Your task to perform on an android device: Go to sound settings Image 0: 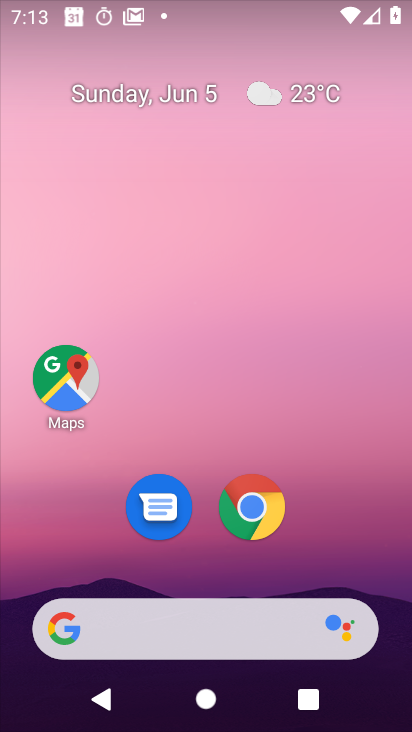
Step 0: click (246, 131)
Your task to perform on an android device: Go to sound settings Image 1: 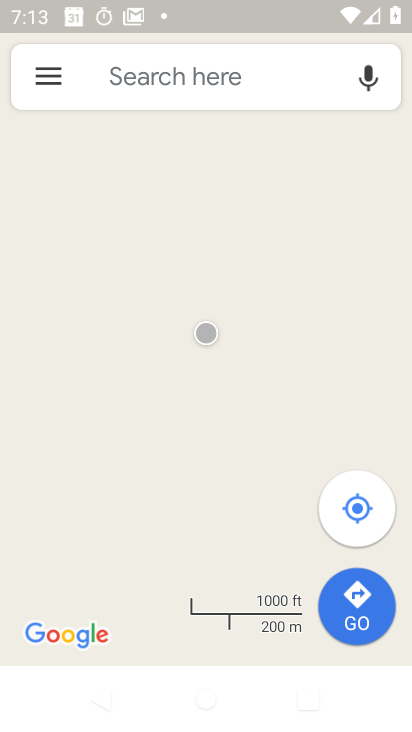
Step 1: press home button
Your task to perform on an android device: Go to sound settings Image 2: 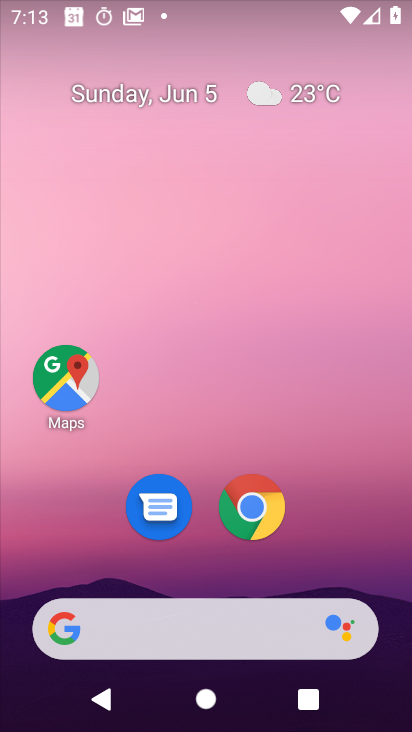
Step 2: drag from (225, 635) to (181, 56)
Your task to perform on an android device: Go to sound settings Image 3: 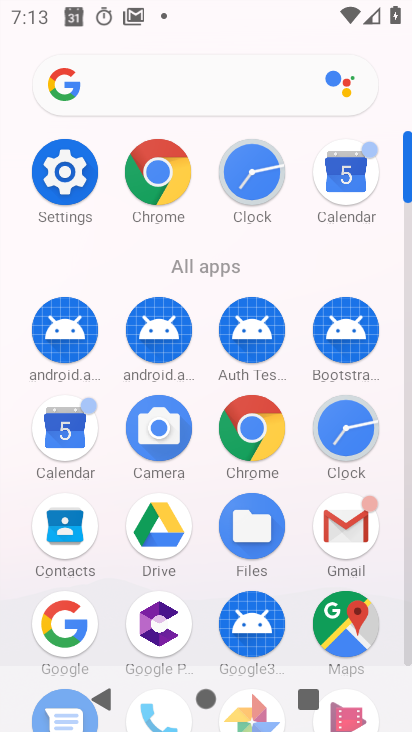
Step 3: click (51, 190)
Your task to perform on an android device: Go to sound settings Image 4: 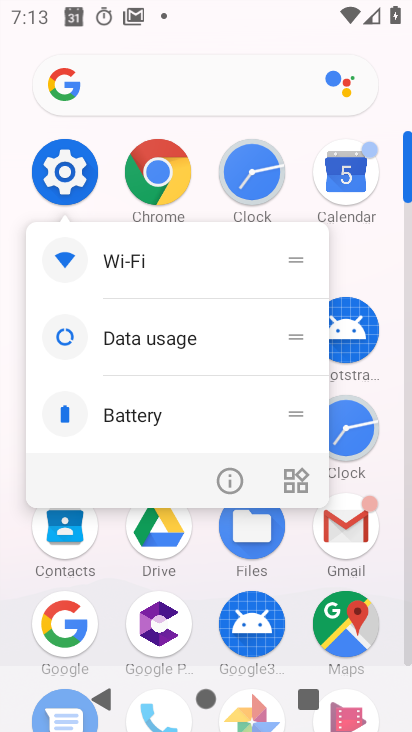
Step 4: click (51, 190)
Your task to perform on an android device: Go to sound settings Image 5: 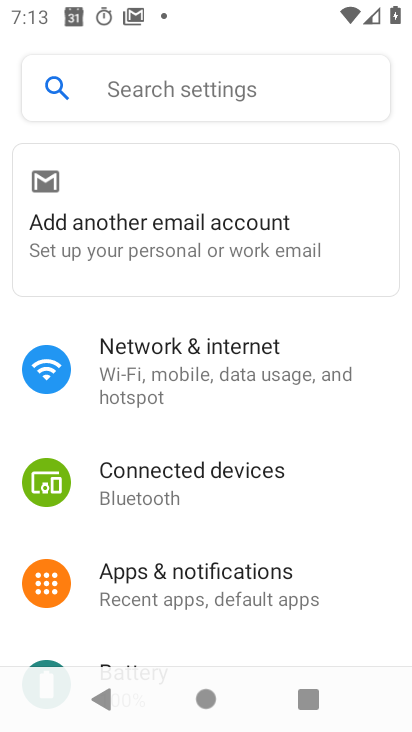
Step 5: click (144, 96)
Your task to perform on an android device: Go to sound settings Image 6: 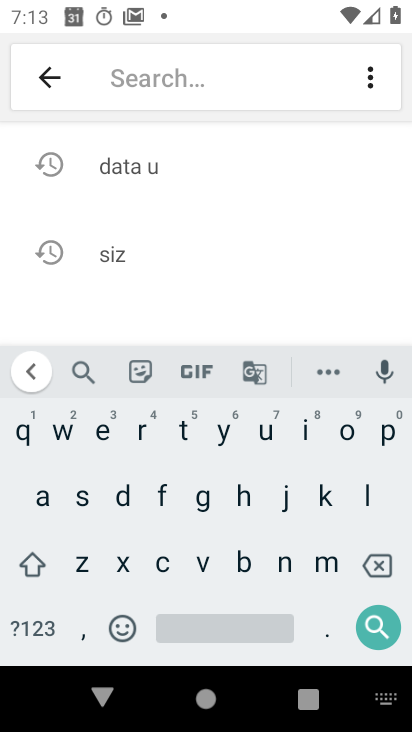
Step 6: click (72, 509)
Your task to perform on an android device: Go to sound settings Image 7: 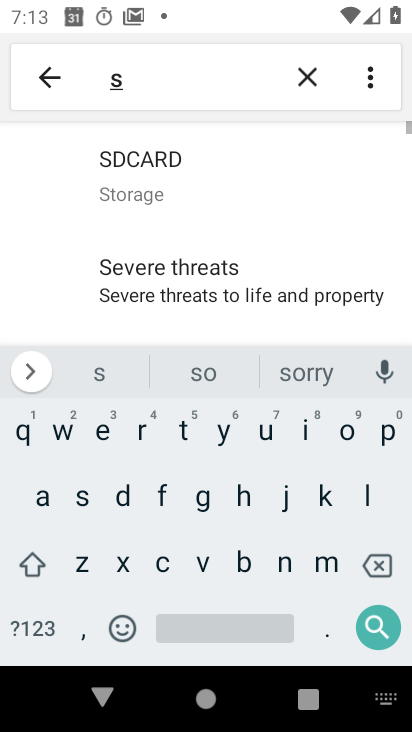
Step 7: click (346, 440)
Your task to perform on an android device: Go to sound settings Image 8: 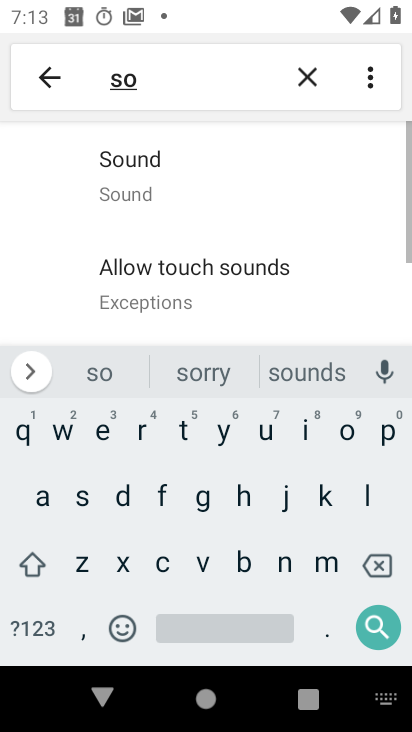
Step 8: click (197, 176)
Your task to perform on an android device: Go to sound settings Image 9: 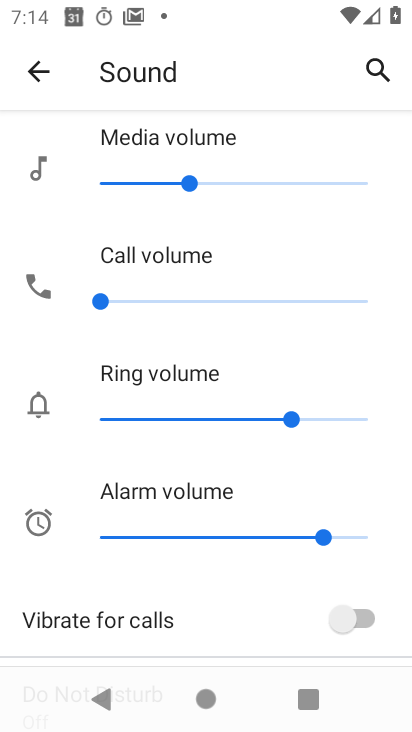
Step 9: task complete